Your task to perform on an android device: clear history in the chrome app Image 0: 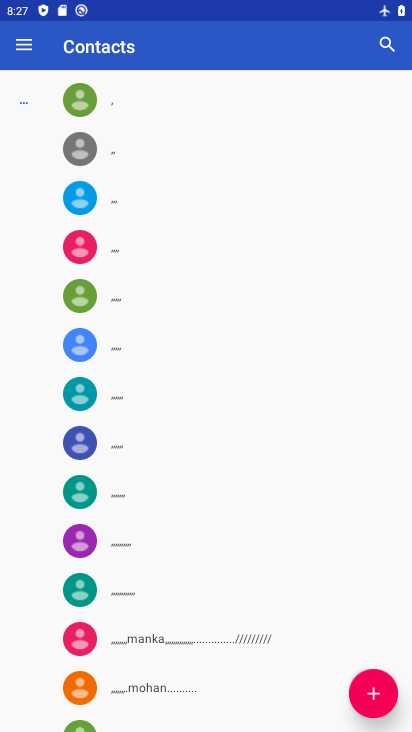
Step 0: press home button
Your task to perform on an android device: clear history in the chrome app Image 1: 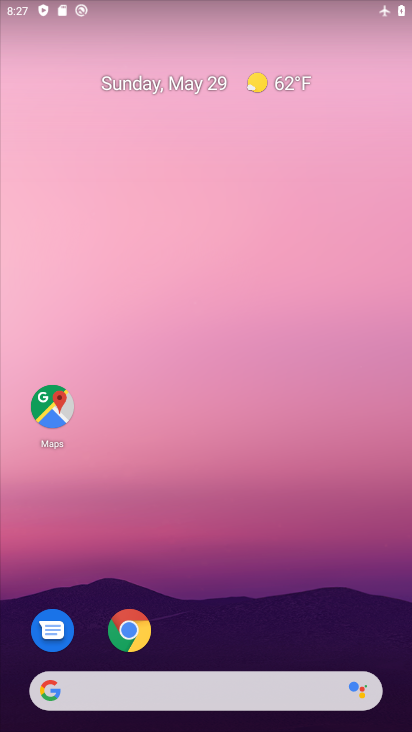
Step 1: click (132, 634)
Your task to perform on an android device: clear history in the chrome app Image 2: 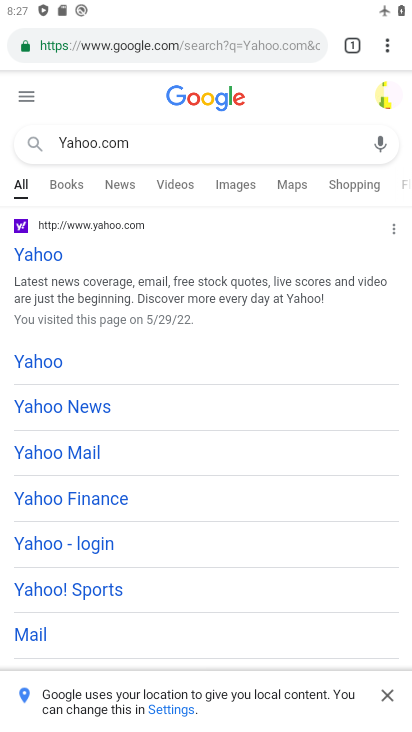
Step 2: click (384, 41)
Your task to perform on an android device: clear history in the chrome app Image 3: 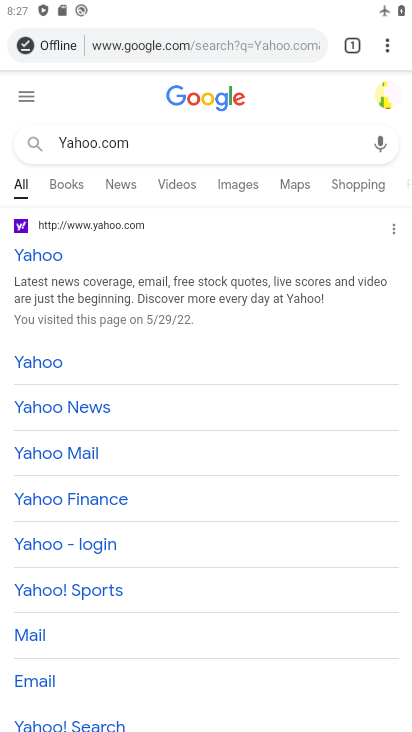
Step 3: click (384, 41)
Your task to perform on an android device: clear history in the chrome app Image 4: 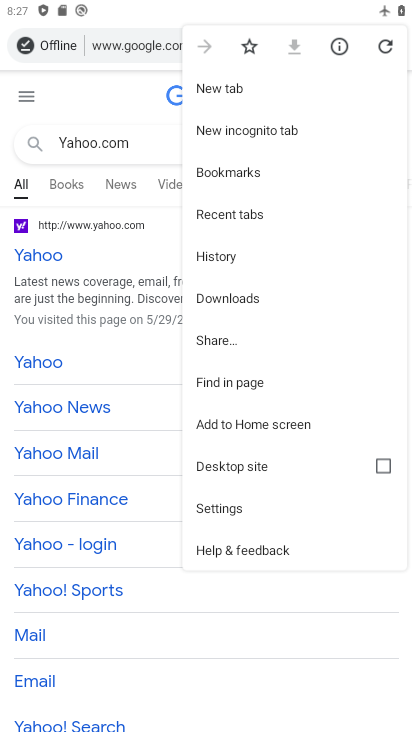
Step 4: click (222, 259)
Your task to perform on an android device: clear history in the chrome app Image 5: 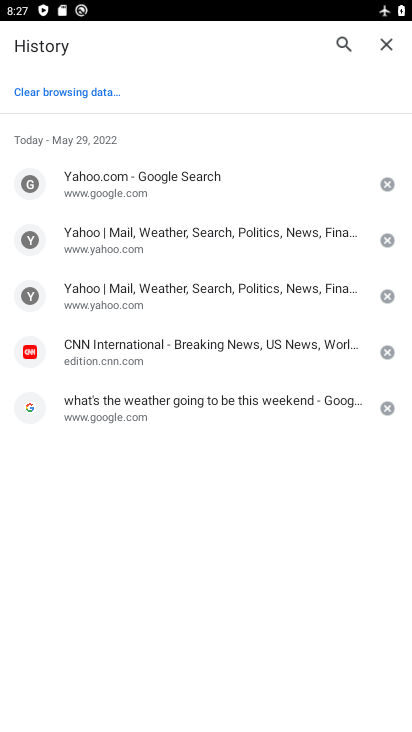
Step 5: click (37, 91)
Your task to perform on an android device: clear history in the chrome app Image 6: 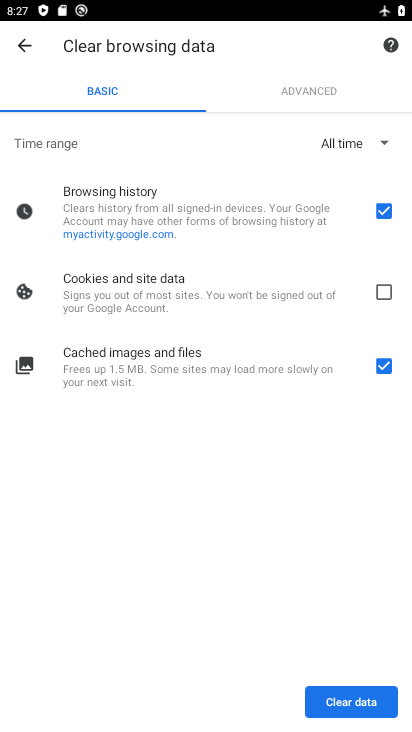
Step 6: click (350, 705)
Your task to perform on an android device: clear history in the chrome app Image 7: 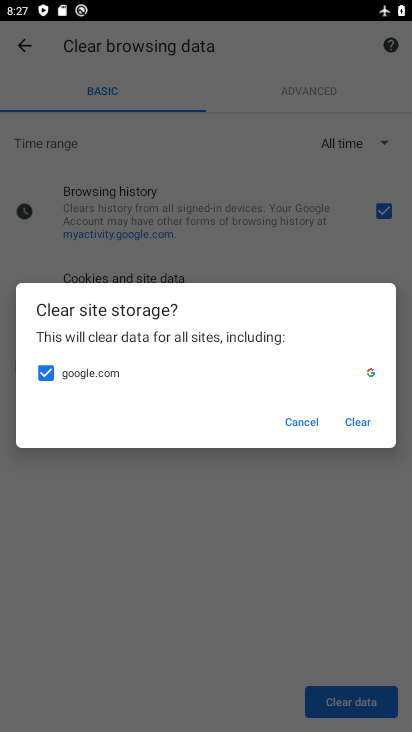
Step 7: click (383, 288)
Your task to perform on an android device: clear history in the chrome app Image 8: 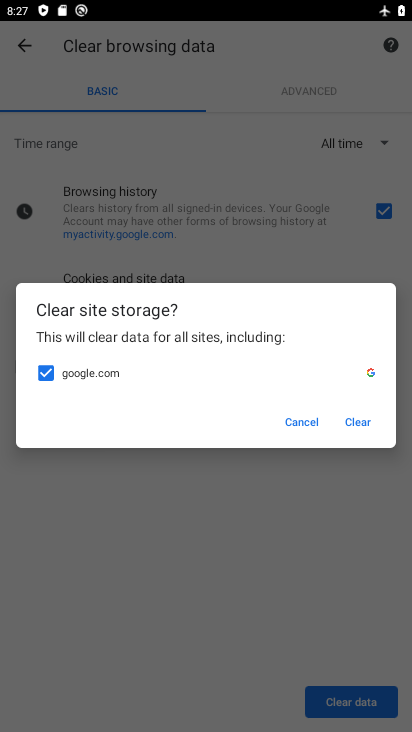
Step 8: click (306, 423)
Your task to perform on an android device: clear history in the chrome app Image 9: 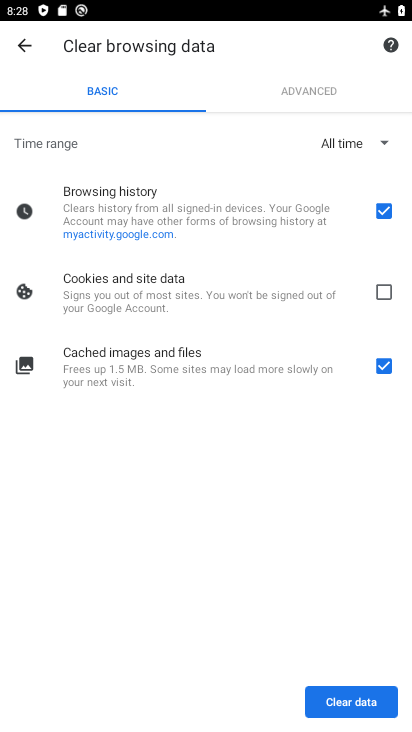
Step 9: click (382, 292)
Your task to perform on an android device: clear history in the chrome app Image 10: 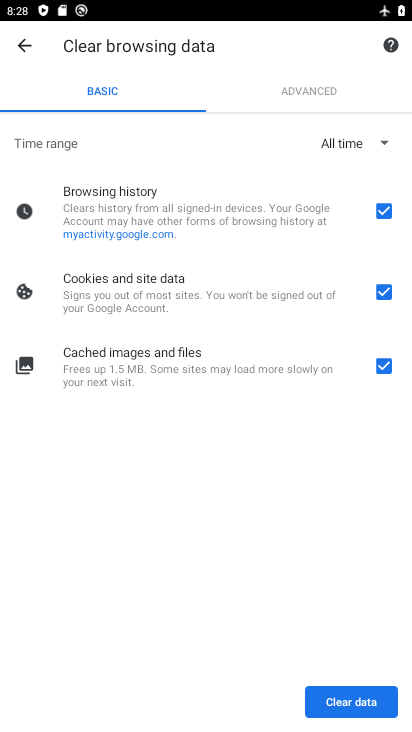
Step 10: click (362, 701)
Your task to perform on an android device: clear history in the chrome app Image 11: 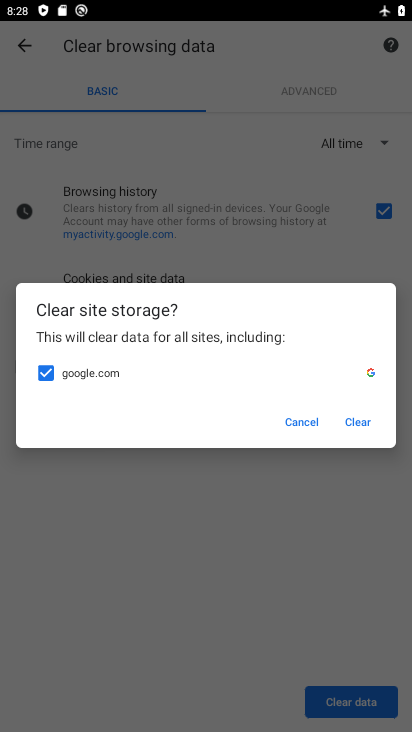
Step 11: click (345, 418)
Your task to perform on an android device: clear history in the chrome app Image 12: 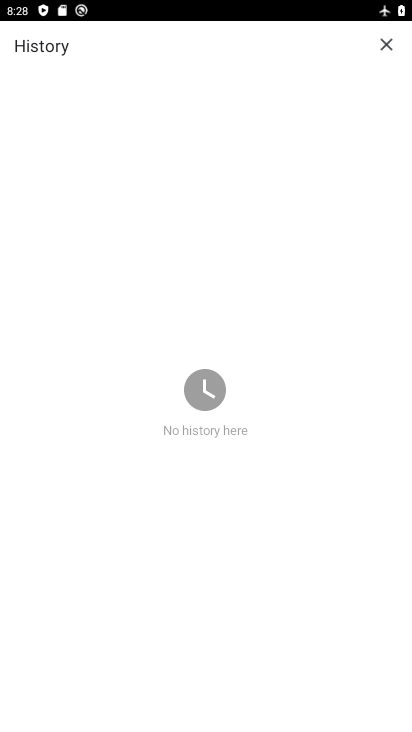
Step 12: task complete